Your task to perform on an android device: delete a single message in the gmail app Image 0: 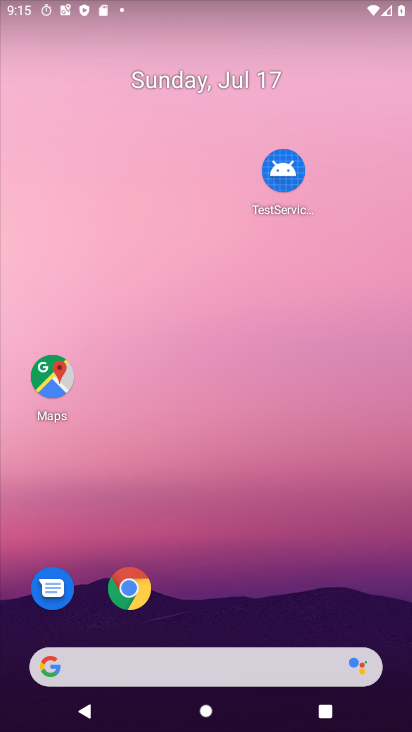
Step 0: drag from (269, 622) to (410, 393)
Your task to perform on an android device: delete a single message in the gmail app Image 1: 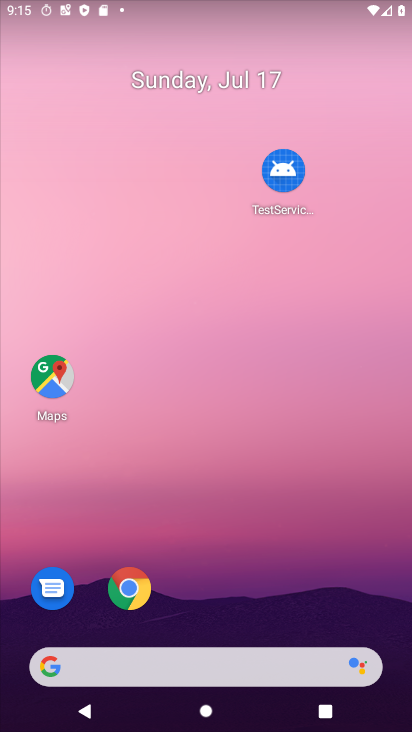
Step 1: drag from (267, 654) to (407, 26)
Your task to perform on an android device: delete a single message in the gmail app Image 2: 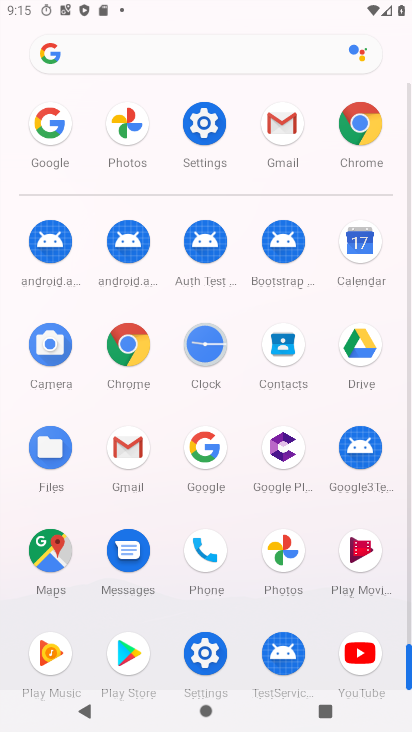
Step 2: drag from (237, 498) to (333, 212)
Your task to perform on an android device: delete a single message in the gmail app Image 3: 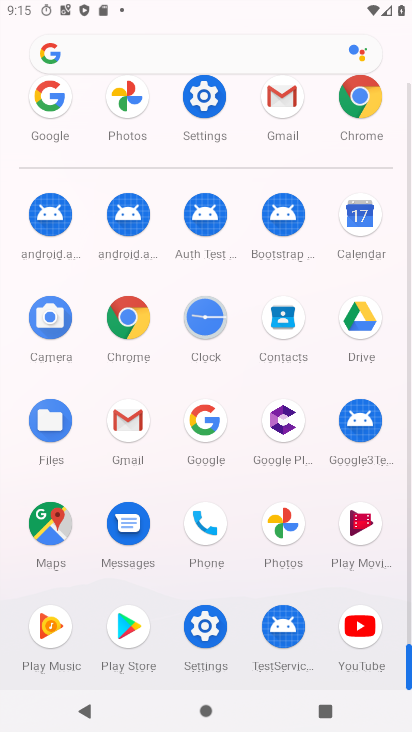
Step 3: click (135, 431)
Your task to perform on an android device: delete a single message in the gmail app Image 4: 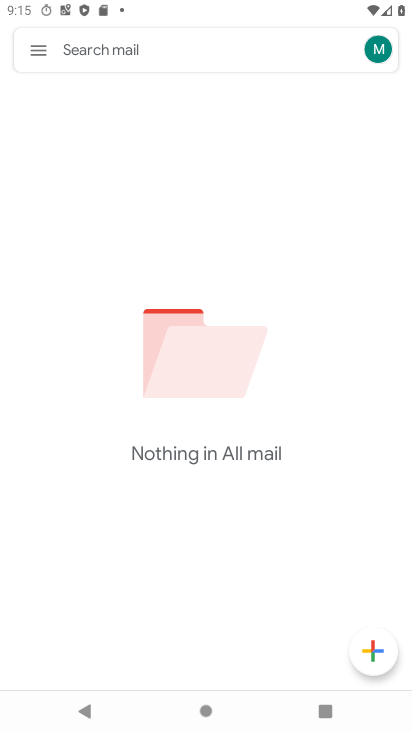
Step 4: click (39, 49)
Your task to perform on an android device: delete a single message in the gmail app Image 5: 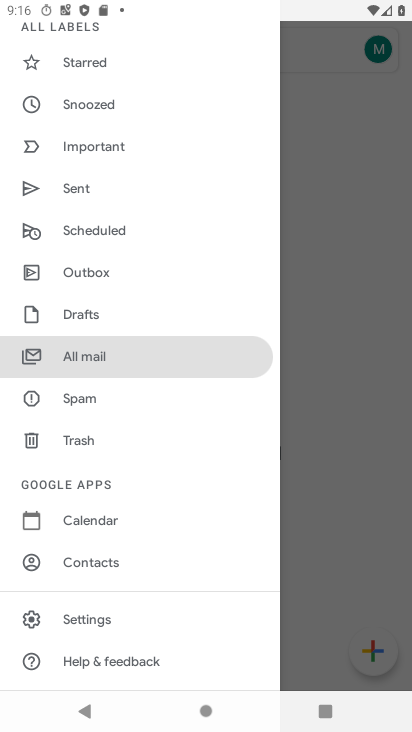
Step 5: click (109, 367)
Your task to perform on an android device: delete a single message in the gmail app Image 6: 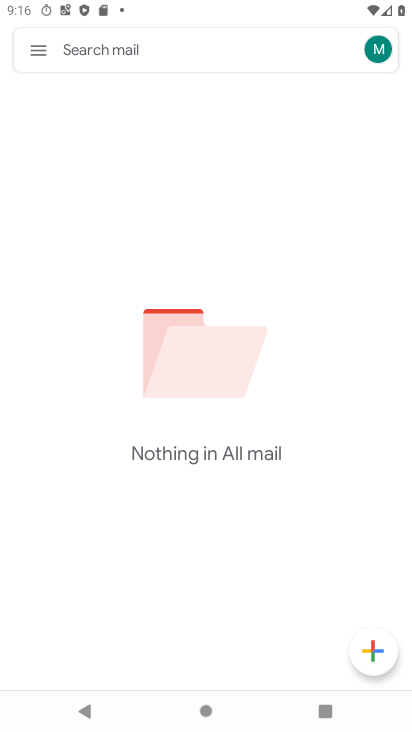
Step 6: task complete